Your task to perform on an android device: open device folders in google photos Image 0: 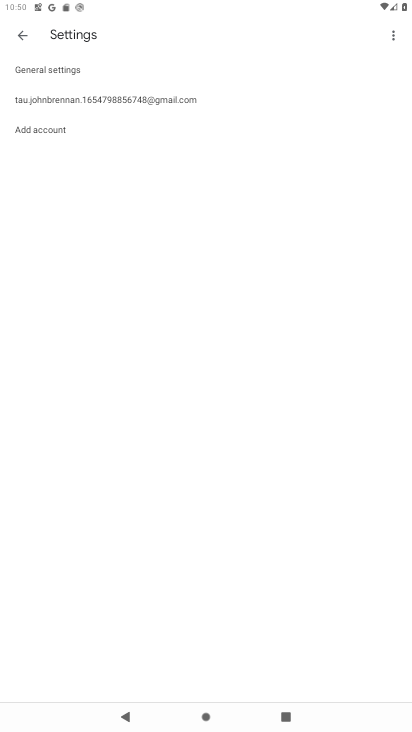
Step 0: press home button
Your task to perform on an android device: open device folders in google photos Image 1: 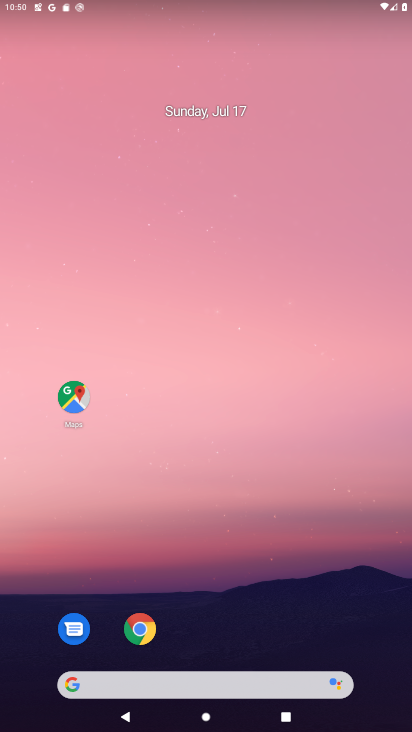
Step 1: drag from (224, 682) to (300, 246)
Your task to perform on an android device: open device folders in google photos Image 2: 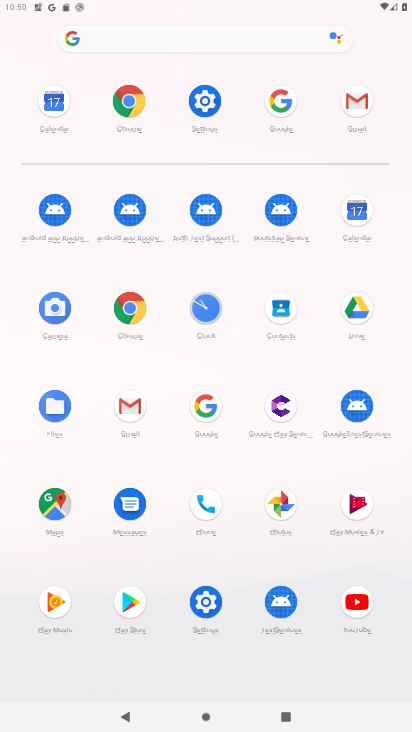
Step 2: click (281, 507)
Your task to perform on an android device: open device folders in google photos Image 3: 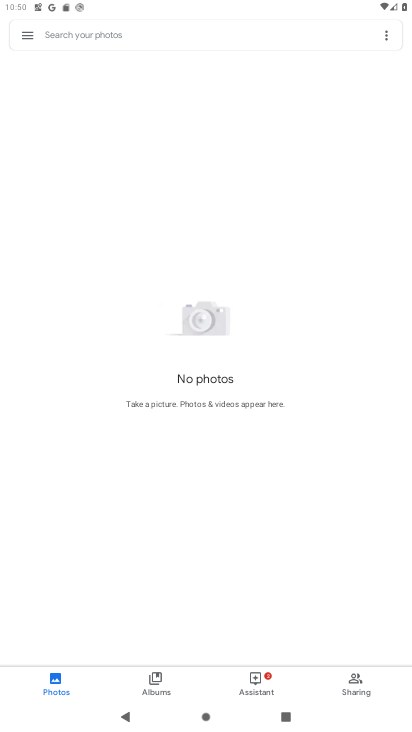
Step 3: click (30, 38)
Your task to perform on an android device: open device folders in google photos Image 4: 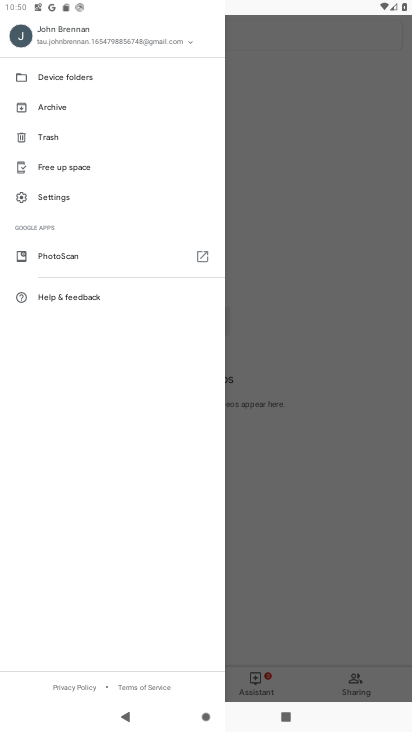
Step 4: click (24, 35)
Your task to perform on an android device: open device folders in google photos Image 5: 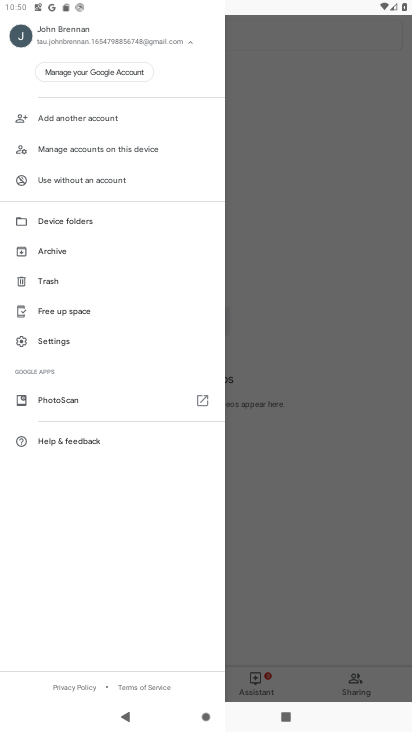
Step 5: click (96, 224)
Your task to perform on an android device: open device folders in google photos Image 6: 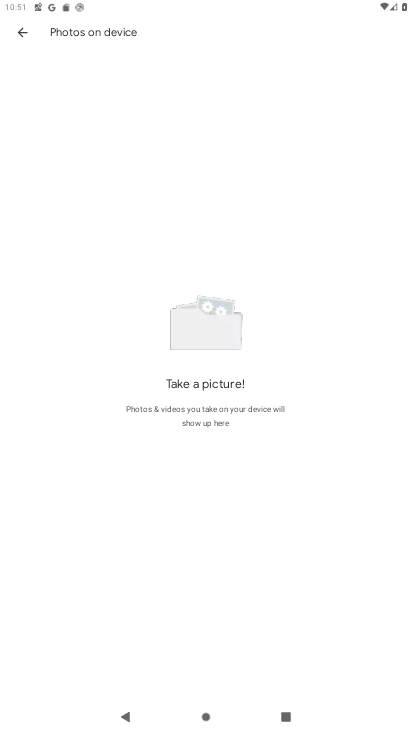
Step 6: task complete